Your task to perform on an android device: Open maps Image 0: 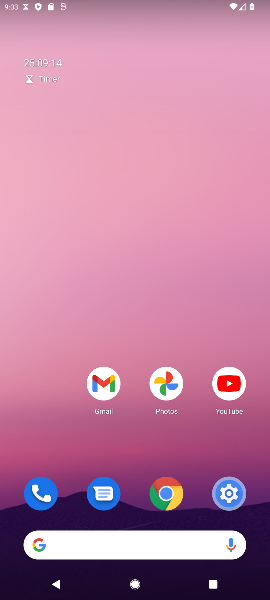
Step 0: drag from (45, 403) to (93, 4)
Your task to perform on an android device: Open maps Image 1: 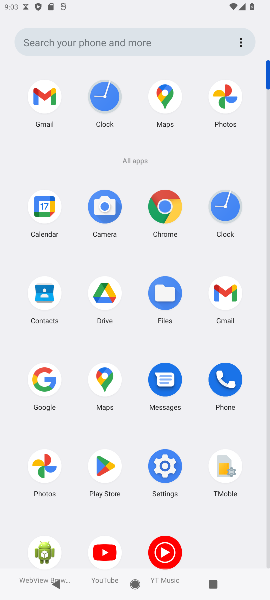
Step 1: click (103, 393)
Your task to perform on an android device: Open maps Image 2: 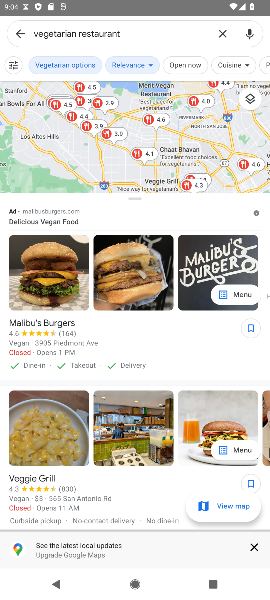
Step 2: task complete